Your task to perform on an android device: empty trash in google photos Image 0: 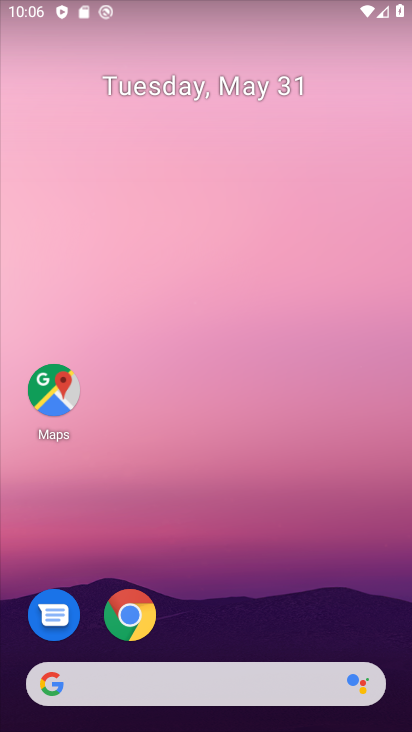
Step 0: drag from (346, 648) to (232, 21)
Your task to perform on an android device: empty trash in google photos Image 1: 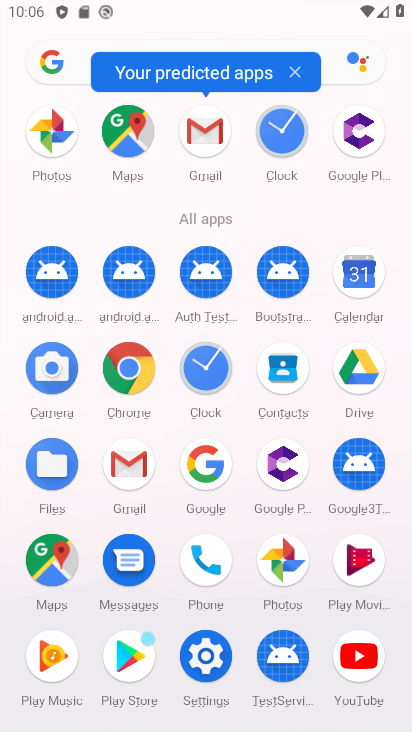
Step 1: click (288, 575)
Your task to perform on an android device: empty trash in google photos Image 2: 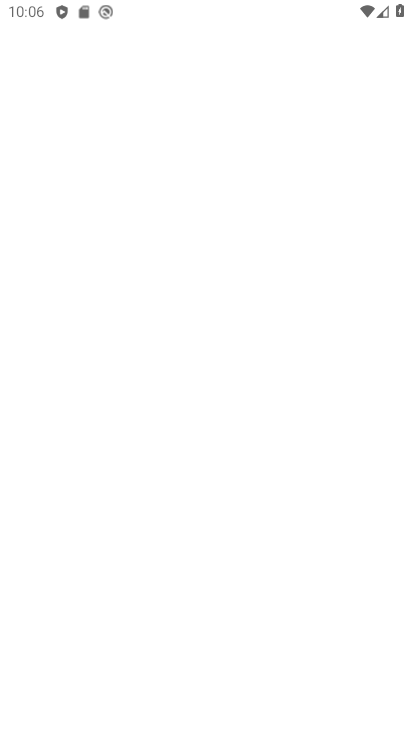
Step 2: task complete